Your task to perform on an android device: Go to Maps Image 0: 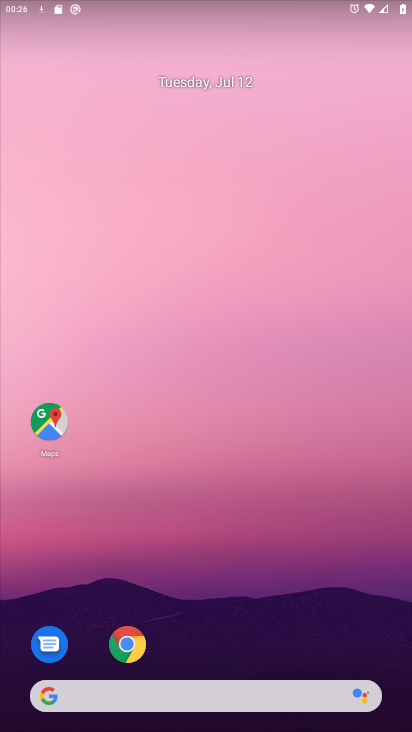
Step 0: drag from (200, 606) to (230, 343)
Your task to perform on an android device: Go to Maps Image 1: 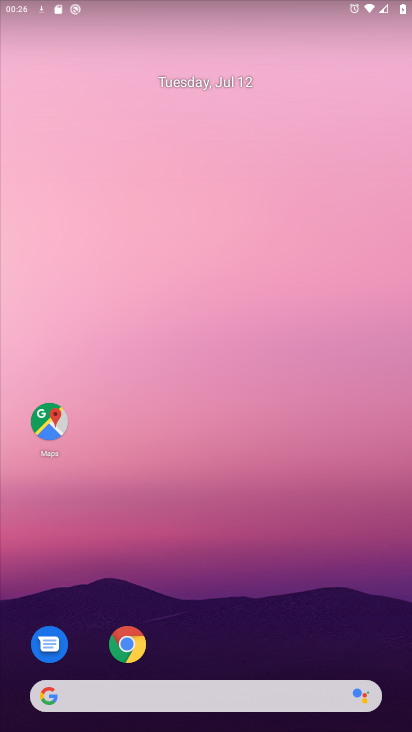
Step 1: click (39, 398)
Your task to perform on an android device: Go to Maps Image 2: 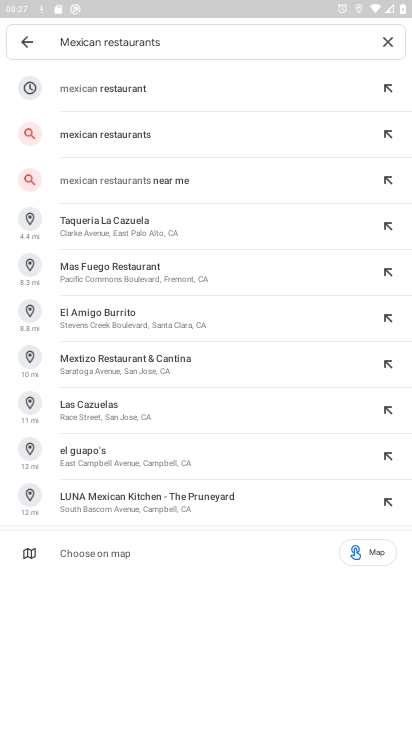
Step 2: click (390, 44)
Your task to perform on an android device: Go to Maps Image 3: 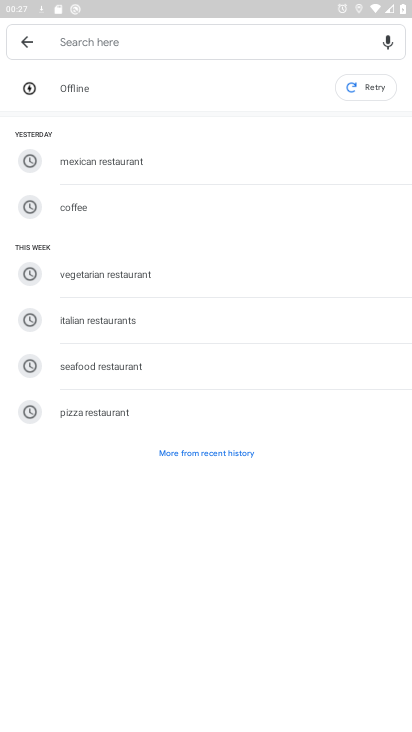
Step 3: click (31, 37)
Your task to perform on an android device: Go to Maps Image 4: 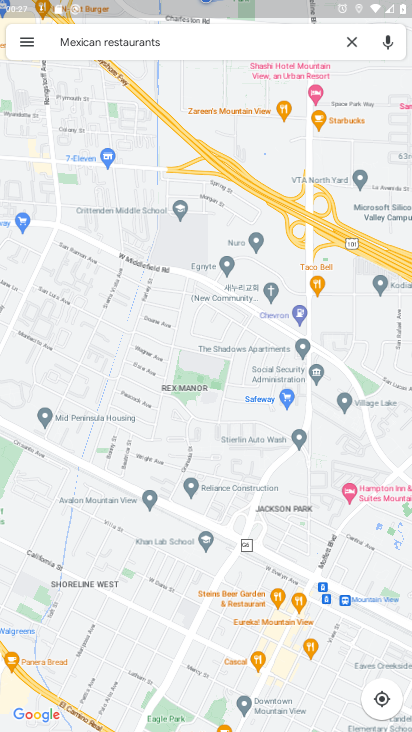
Step 4: task complete